Your task to perform on an android device: Search for pizza restaurants on Maps Image 0: 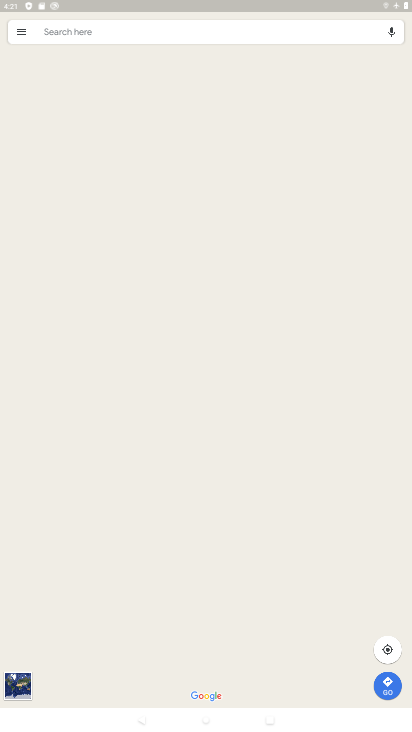
Step 0: press home button
Your task to perform on an android device: Search for pizza restaurants on Maps Image 1: 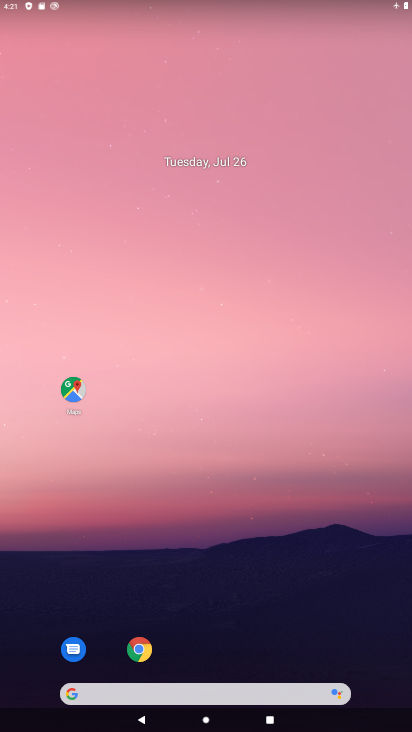
Step 1: click (77, 404)
Your task to perform on an android device: Search for pizza restaurants on Maps Image 2: 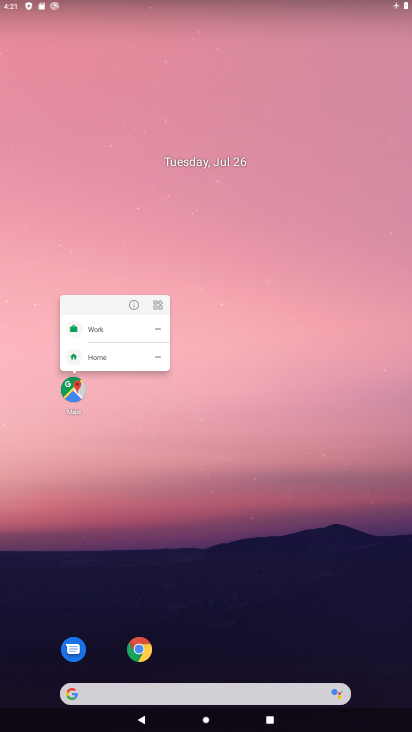
Step 2: click (77, 404)
Your task to perform on an android device: Search for pizza restaurants on Maps Image 3: 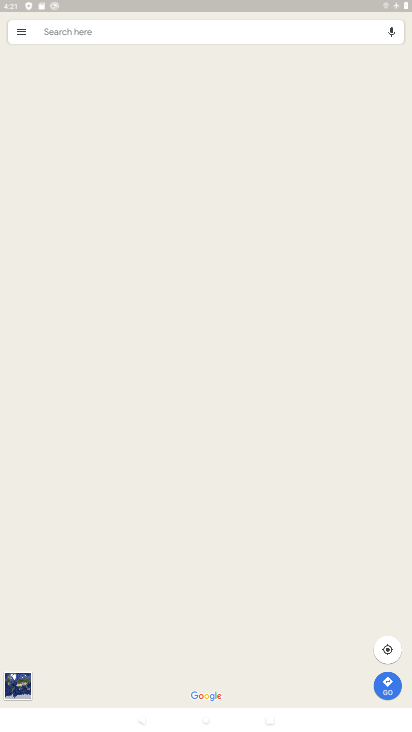
Step 3: click (199, 23)
Your task to perform on an android device: Search for pizza restaurants on Maps Image 4: 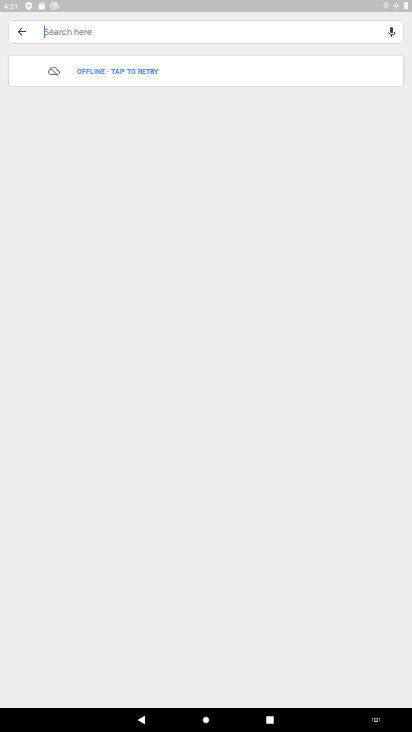
Step 4: type "pizza restaurants"
Your task to perform on an android device: Search for pizza restaurants on Maps Image 5: 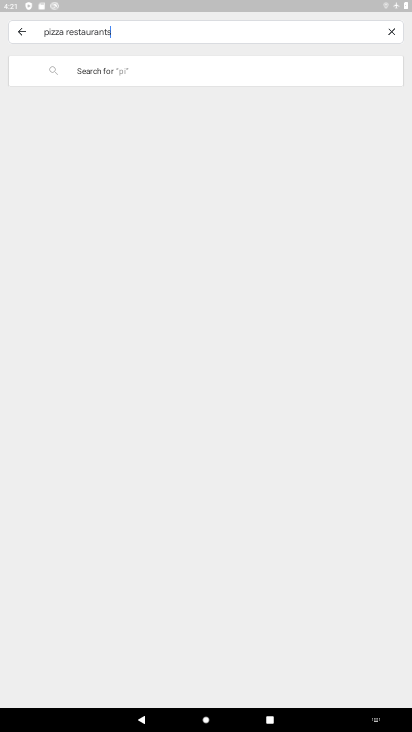
Step 5: type ""
Your task to perform on an android device: Search for pizza restaurants on Maps Image 6: 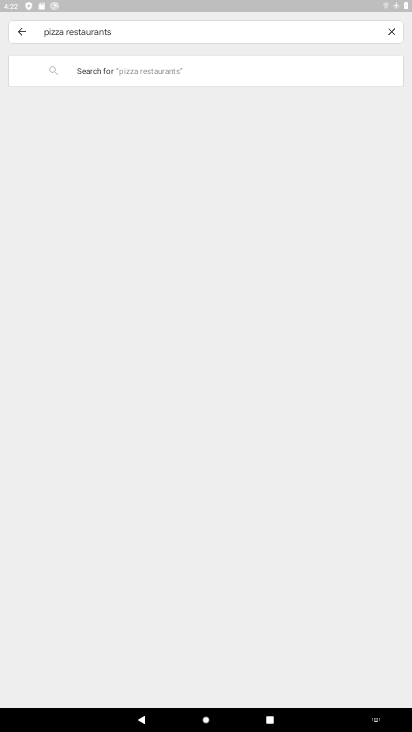
Step 6: task complete